Your task to perform on an android device: check battery use Image 0: 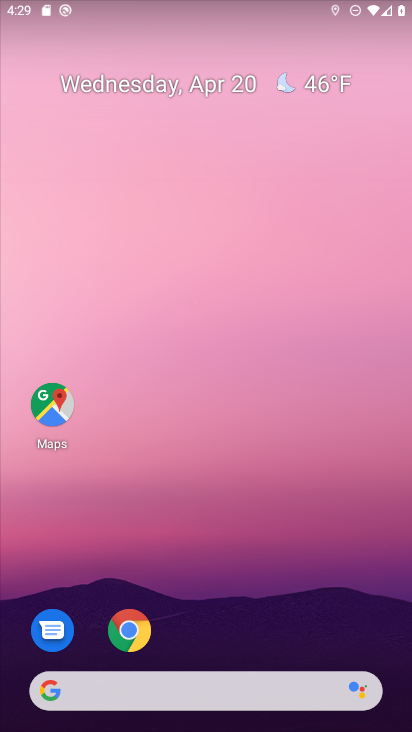
Step 0: drag from (158, 466) to (221, 43)
Your task to perform on an android device: check battery use Image 1: 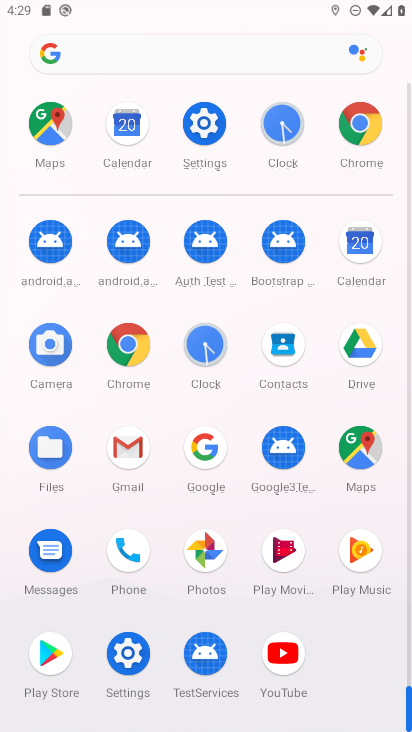
Step 1: click (131, 641)
Your task to perform on an android device: check battery use Image 2: 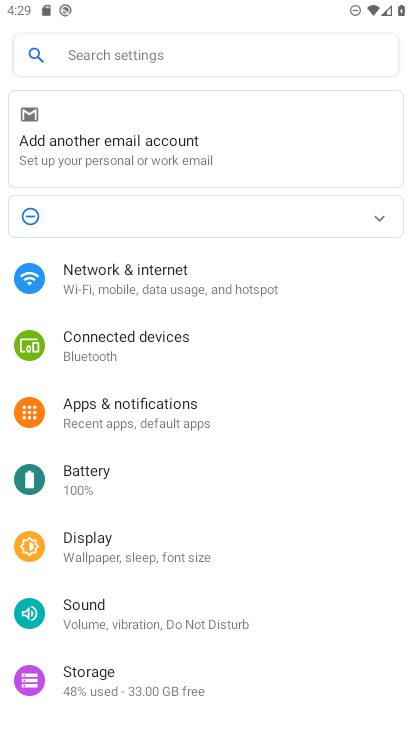
Step 2: click (153, 480)
Your task to perform on an android device: check battery use Image 3: 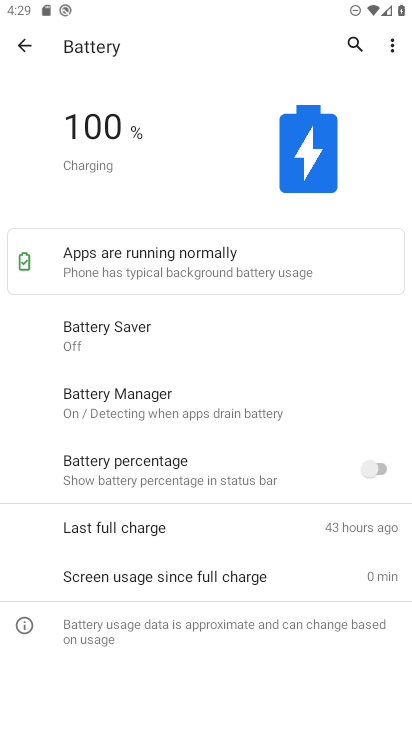
Step 3: task complete